Your task to perform on an android device: turn off priority inbox in the gmail app Image 0: 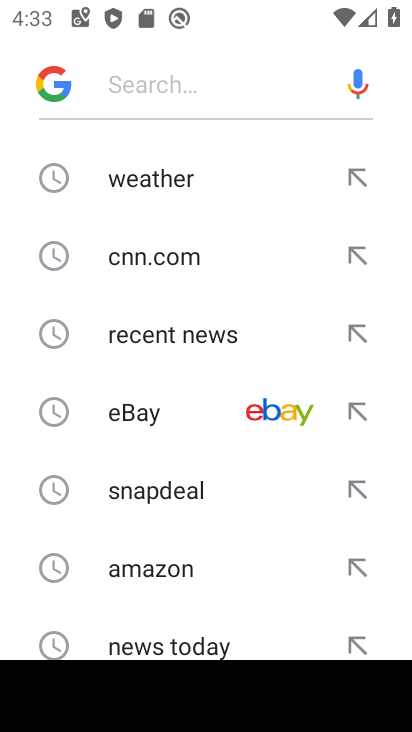
Step 0: drag from (239, 542) to (257, 197)
Your task to perform on an android device: turn off priority inbox in the gmail app Image 1: 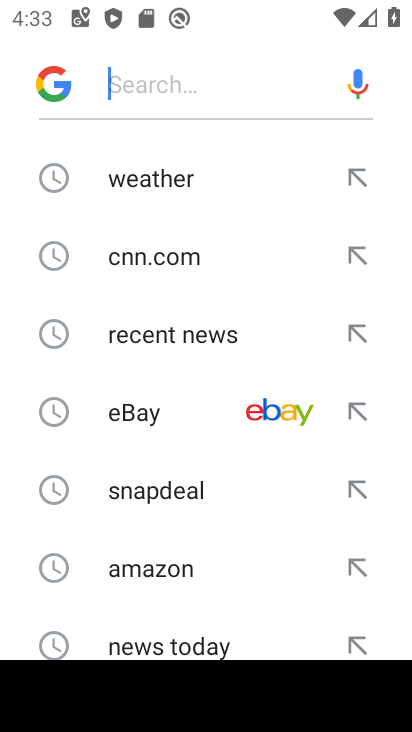
Step 1: press home button
Your task to perform on an android device: turn off priority inbox in the gmail app Image 2: 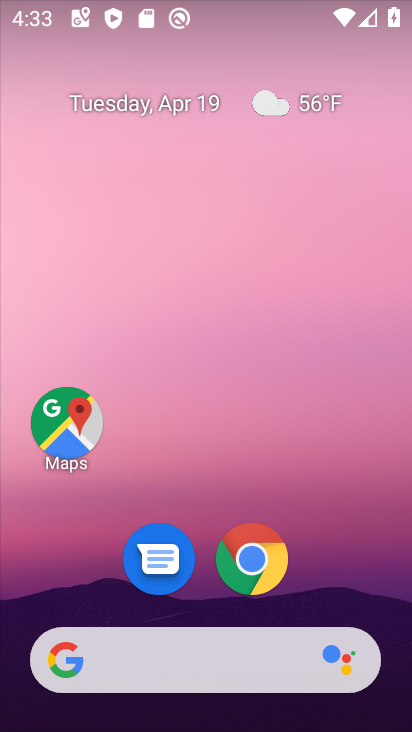
Step 2: drag from (350, 468) to (327, 153)
Your task to perform on an android device: turn off priority inbox in the gmail app Image 3: 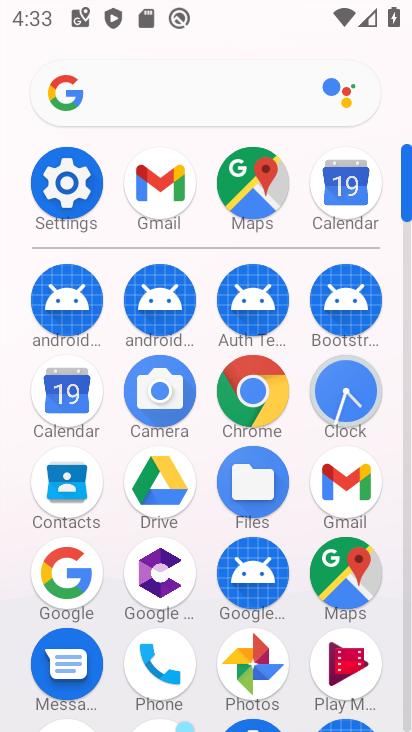
Step 3: click (347, 493)
Your task to perform on an android device: turn off priority inbox in the gmail app Image 4: 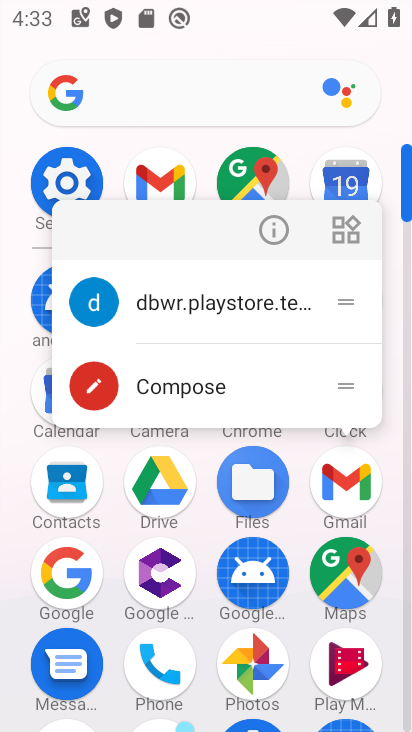
Step 4: click (342, 491)
Your task to perform on an android device: turn off priority inbox in the gmail app Image 5: 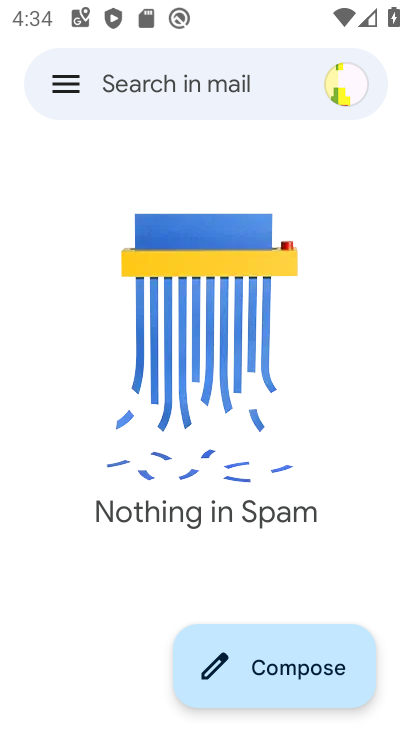
Step 5: click (66, 89)
Your task to perform on an android device: turn off priority inbox in the gmail app Image 6: 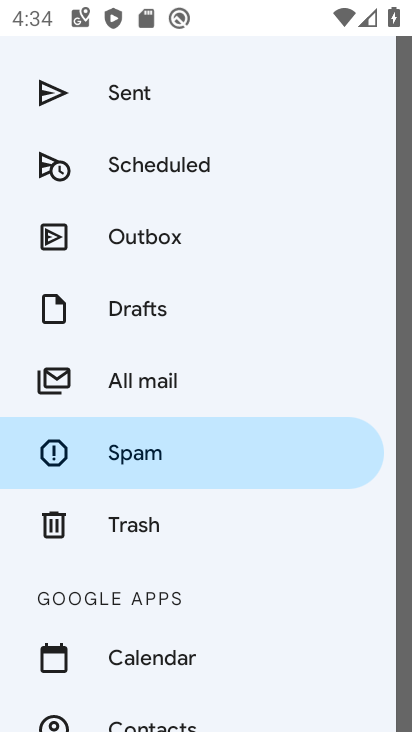
Step 6: drag from (349, 506) to (373, 129)
Your task to perform on an android device: turn off priority inbox in the gmail app Image 7: 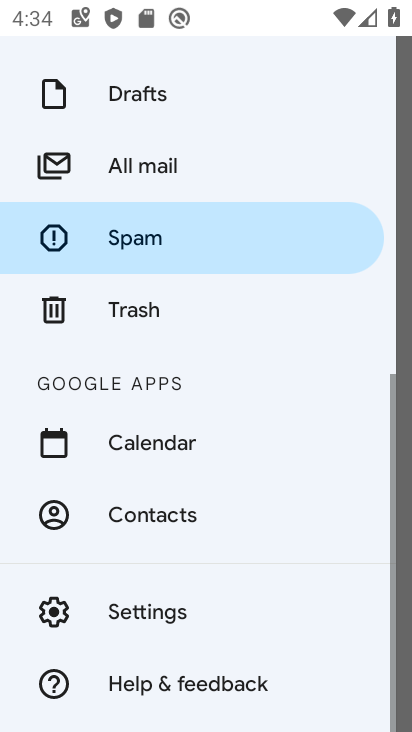
Step 7: drag from (274, 535) to (296, 340)
Your task to perform on an android device: turn off priority inbox in the gmail app Image 8: 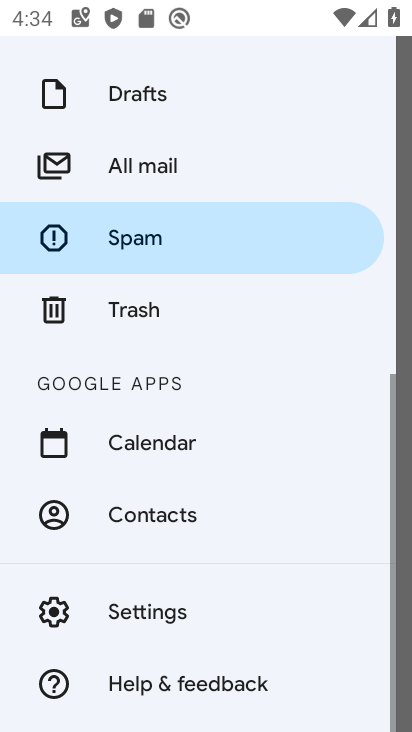
Step 8: click (125, 606)
Your task to perform on an android device: turn off priority inbox in the gmail app Image 9: 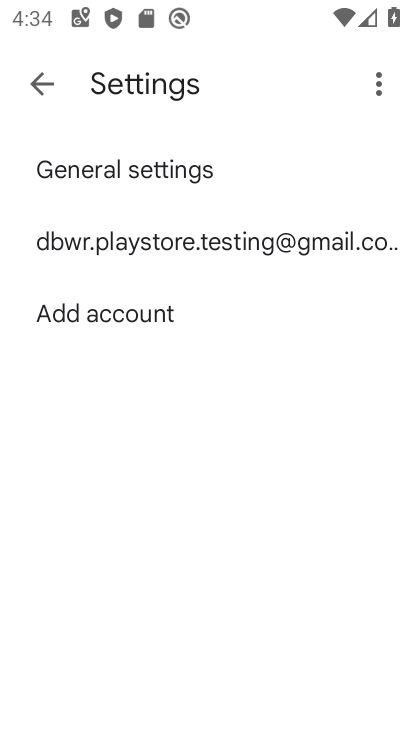
Step 9: click (138, 234)
Your task to perform on an android device: turn off priority inbox in the gmail app Image 10: 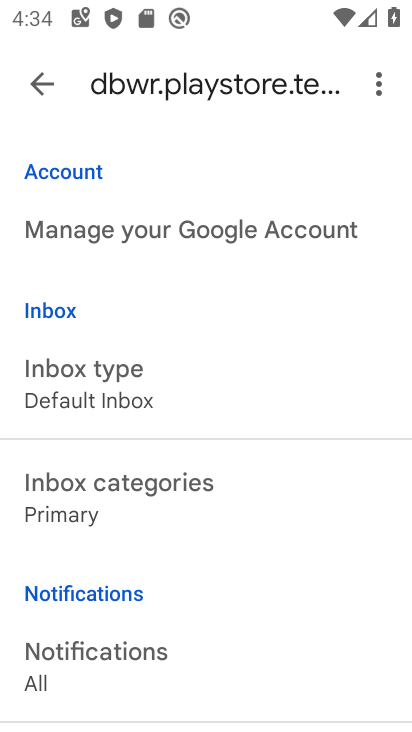
Step 10: click (65, 497)
Your task to perform on an android device: turn off priority inbox in the gmail app Image 11: 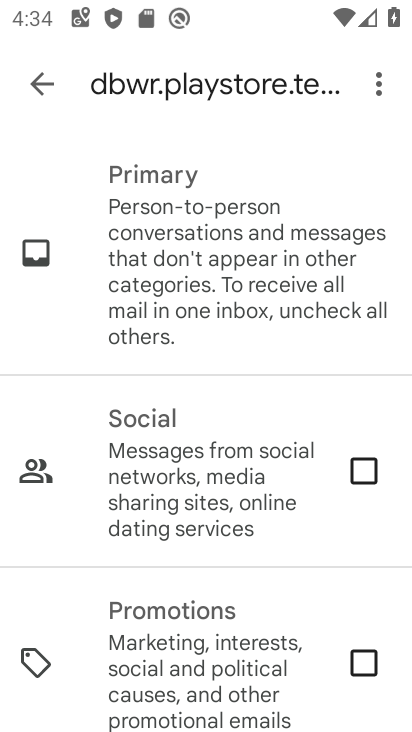
Step 11: click (41, 75)
Your task to perform on an android device: turn off priority inbox in the gmail app Image 12: 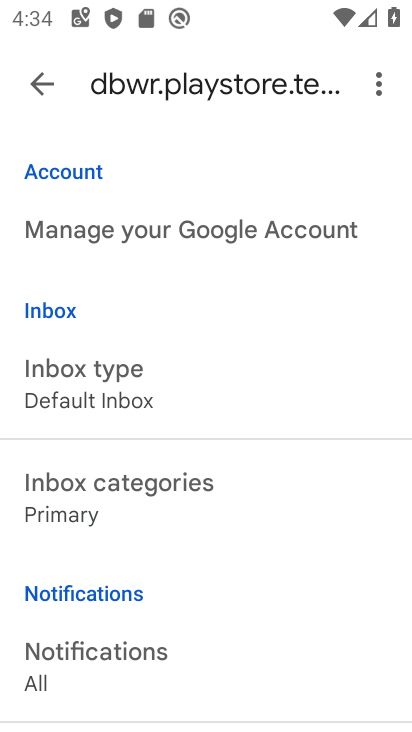
Step 12: click (51, 358)
Your task to perform on an android device: turn off priority inbox in the gmail app Image 13: 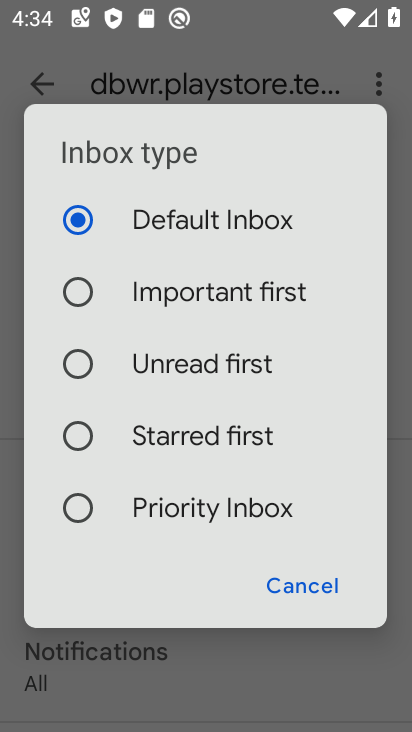
Step 13: task complete